Your task to perform on an android device: Open Google Chrome Image 0: 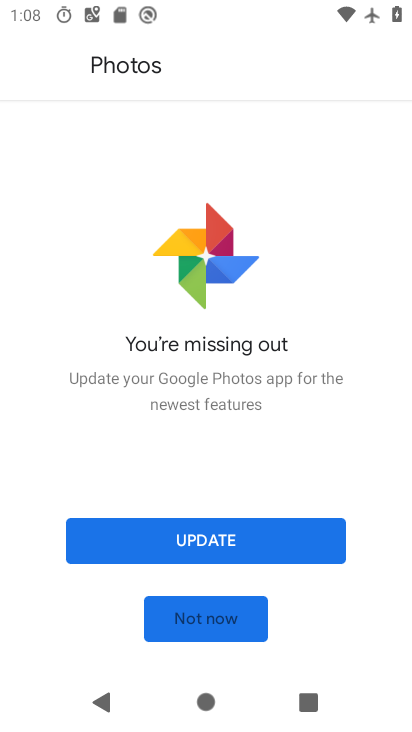
Step 0: press home button
Your task to perform on an android device: Open Google Chrome Image 1: 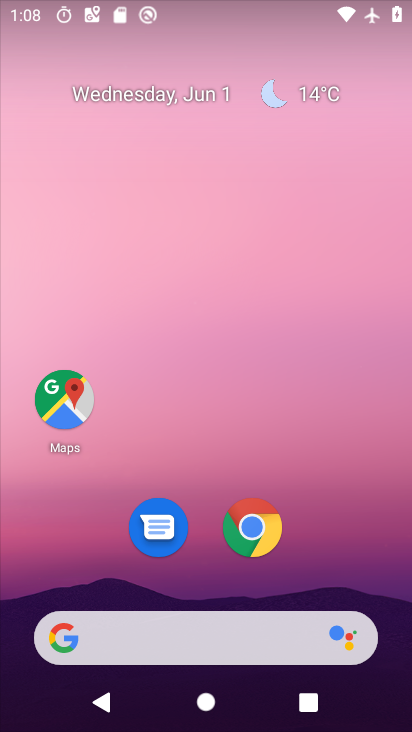
Step 1: click (250, 538)
Your task to perform on an android device: Open Google Chrome Image 2: 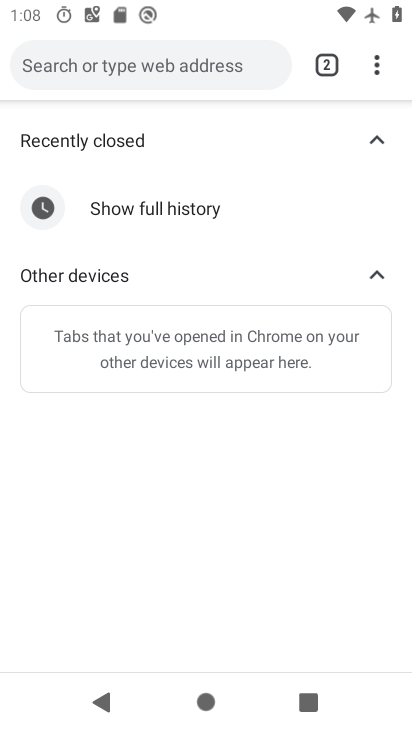
Step 2: task complete